Your task to perform on an android device: open wifi settings Image 0: 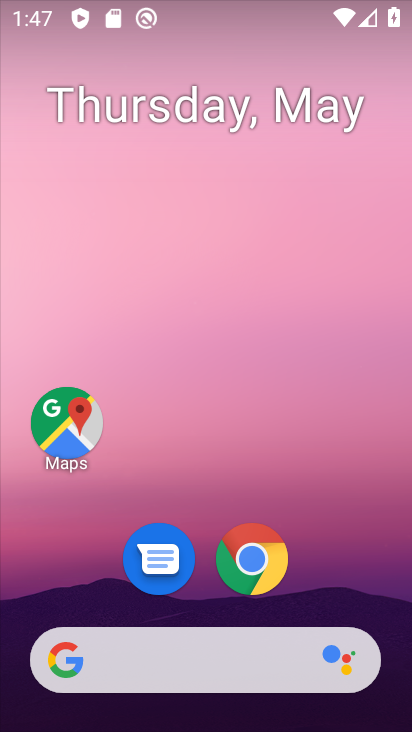
Step 0: drag from (204, 604) to (204, 225)
Your task to perform on an android device: open wifi settings Image 1: 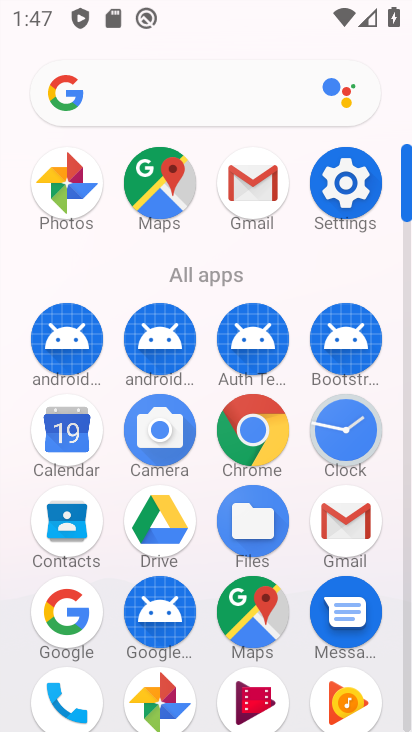
Step 1: click (318, 184)
Your task to perform on an android device: open wifi settings Image 2: 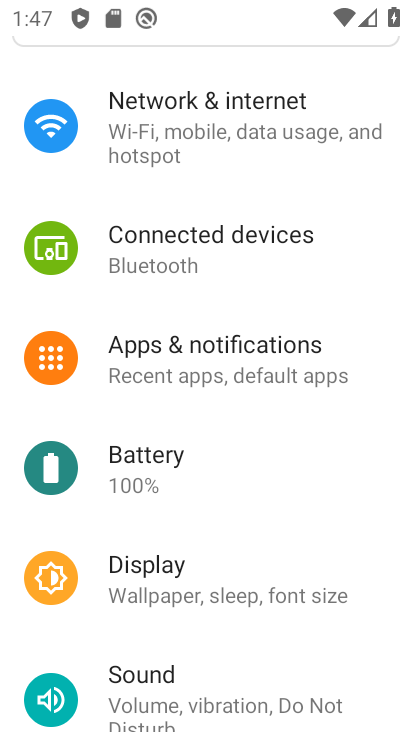
Step 2: click (155, 145)
Your task to perform on an android device: open wifi settings Image 3: 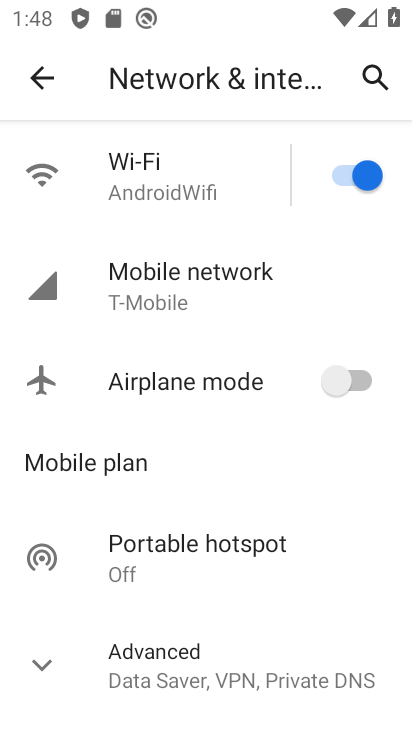
Step 3: click (155, 158)
Your task to perform on an android device: open wifi settings Image 4: 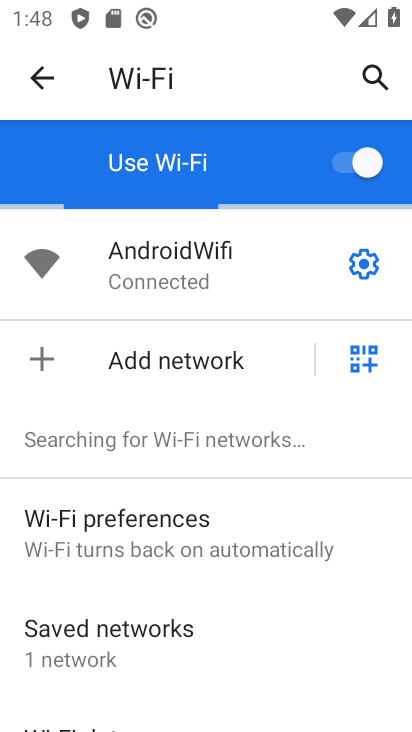
Step 4: task complete